Your task to perform on an android device: Go to calendar. Show me events next week Image 0: 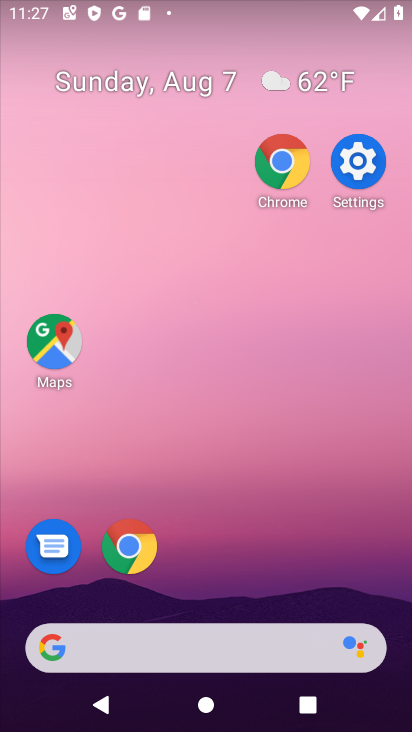
Step 0: drag from (280, 399) to (221, 115)
Your task to perform on an android device: Go to calendar. Show me events next week Image 1: 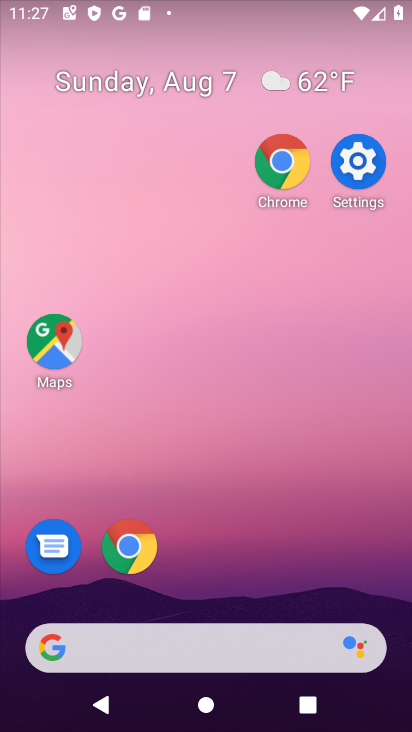
Step 1: drag from (221, 502) to (221, 81)
Your task to perform on an android device: Go to calendar. Show me events next week Image 2: 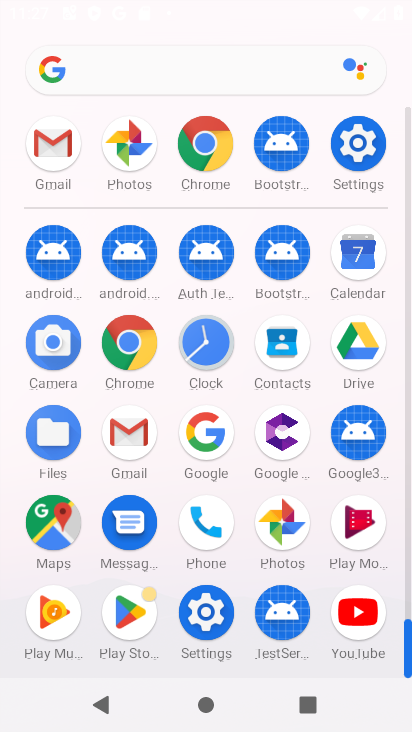
Step 2: click (355, 231)
Your task to perform on an android device: Go to calendar. Show me events next week Image 3: 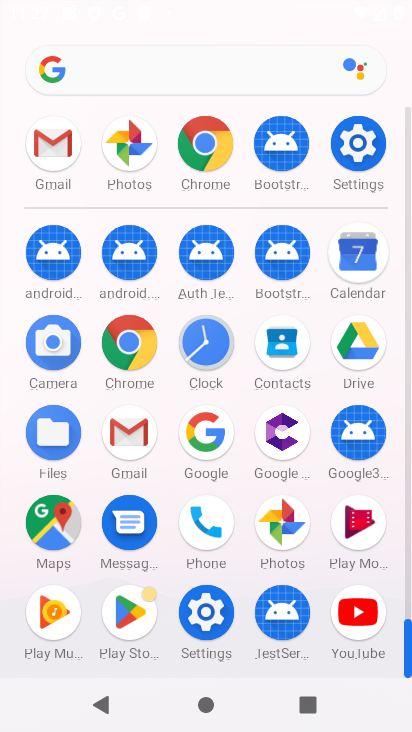
Step 3: click (358, 257)
Your task to perform on an android device: Go to calendar. Show me events next week Image 4: 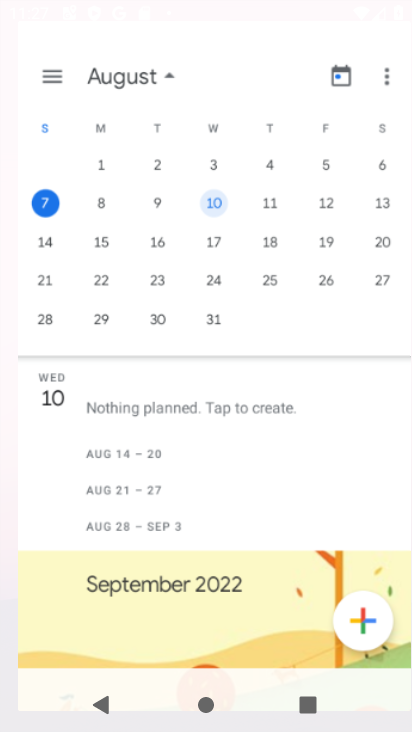
Step 4: click (358, 257)
Your task to perform on an android device: Go to calendar. Show me events next week Image 5: 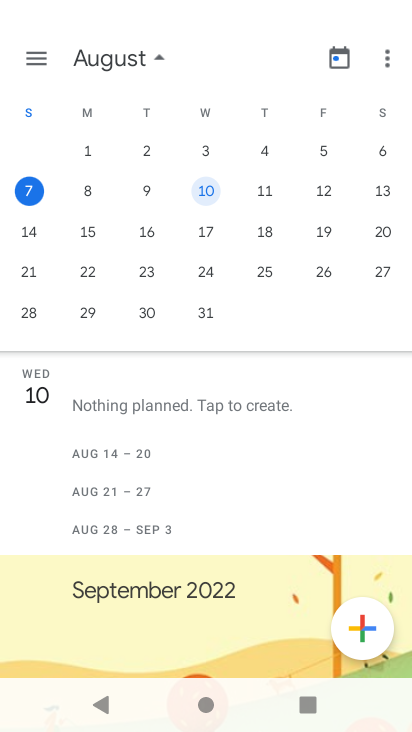
Step 5: click (156, 55)
Your task to perform on an android device: Go to calendar. Show me events next week Image 6: 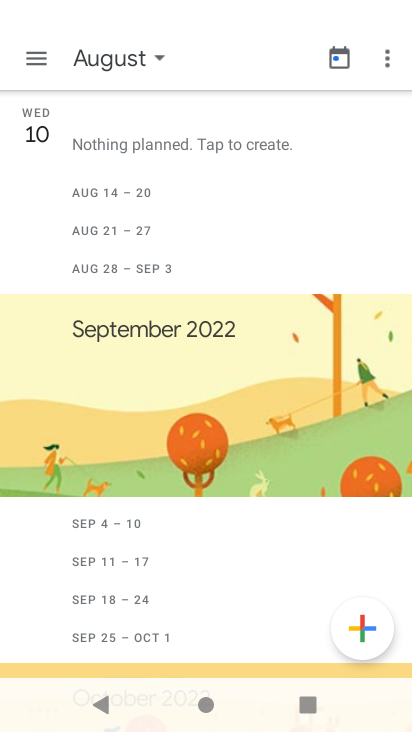
Step 6: click (158, 54)
Your task to perform on an android device: Go to calendar. Show me events next week Image 7: 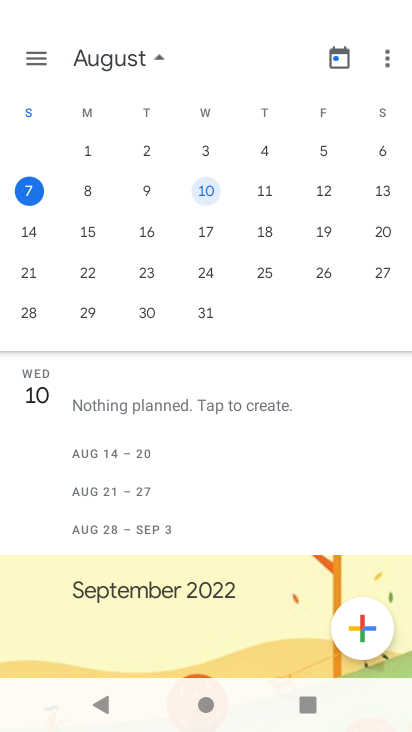
Step 7: click (205, 231)
Your task to perform on an android device: Go to calendar. Show me events next week Image 8: 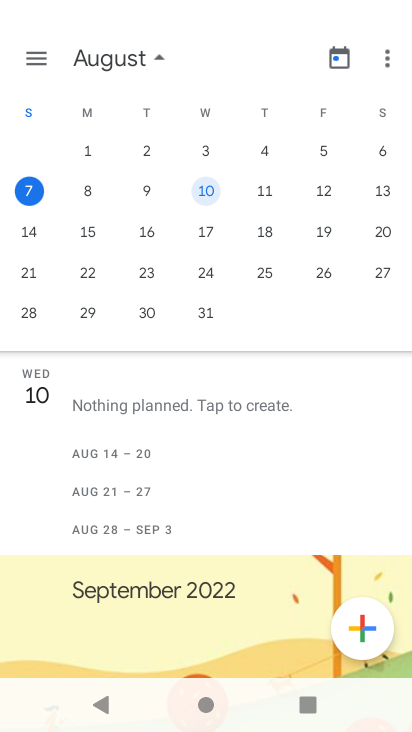
Step 8: click (204, 232)
Your task to perform on an android device: Go to calendar. Show me events next week Image 9: 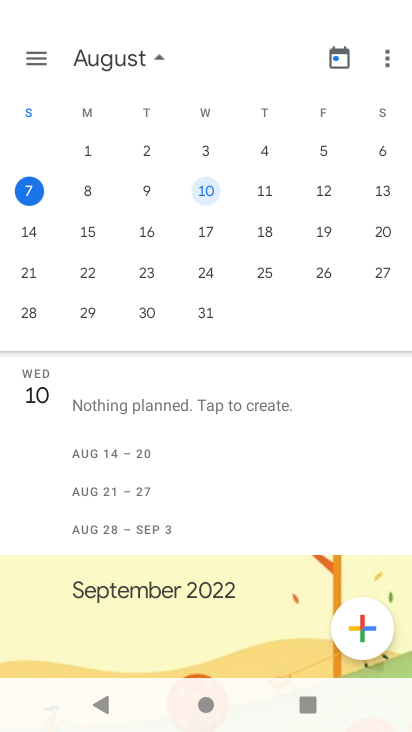
Step 9: click (204, 232)
Your task to perform on an android device: Go to calendar. Show me events next week Image 10: 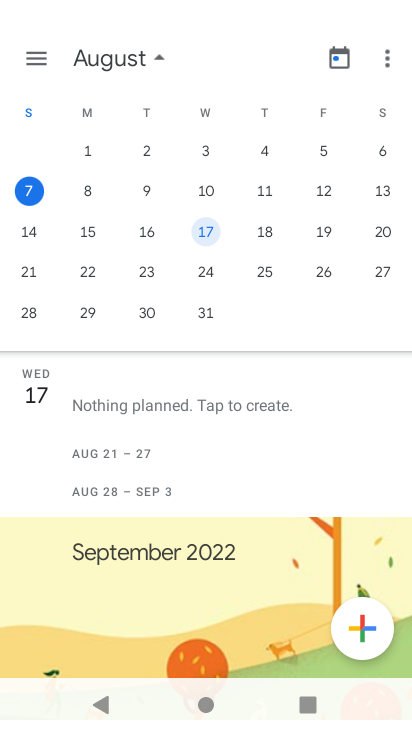
Step 10: click (204, 232)
Your task to perform on an android device: Go to calendar. Show me events next week Image 11: 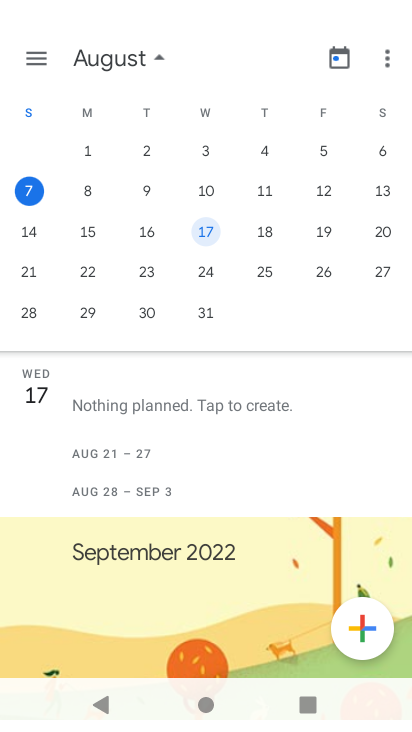
Step 11: click (204, 232)
Your task to perform on an android device: Go to calendar. Show me events next week Image 12: 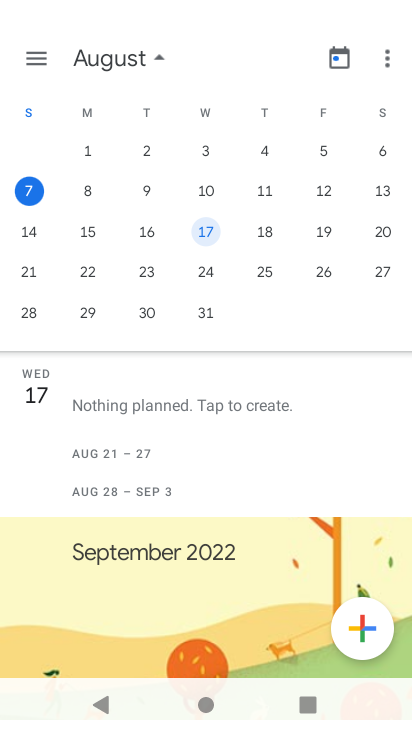
Step 12: click (205, 233)
Your task to perform on an android device: Go to calendar. Show me events next week Image 13: 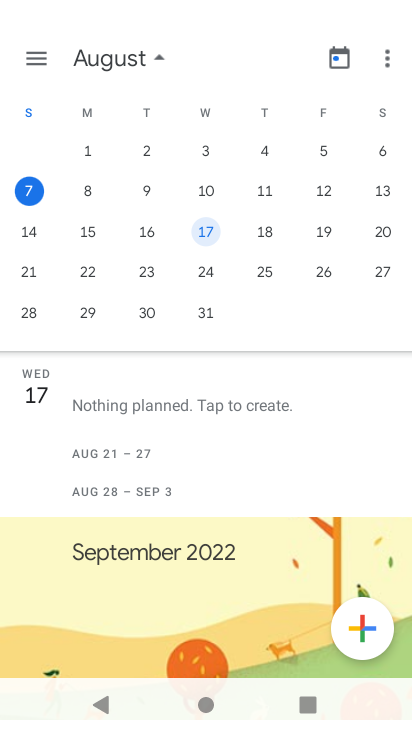
Step 13: click (205, 233)
Your task to perform on an android device: Go to calendar. Show me events next week Image 14: 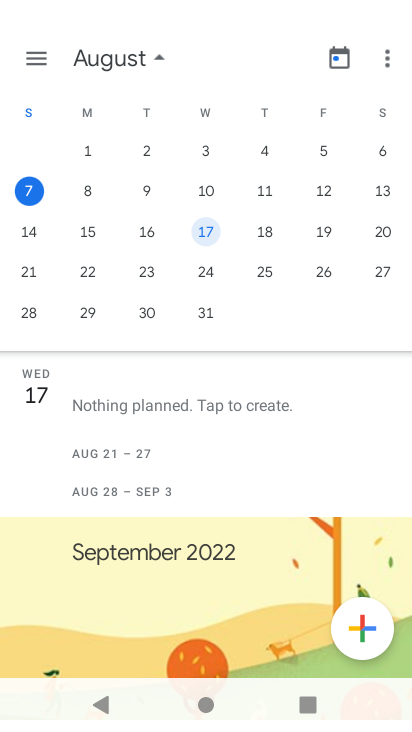
Step 14: click (205, 233)
Your task to perform on an android device: Go to calendar. Show me events next week Image 15: 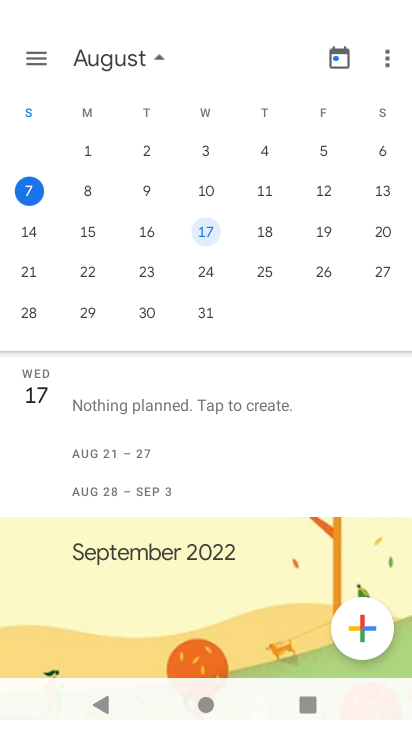
Step 15: task complete